Your task to perform on an android device: toggle notification dots Image 0: 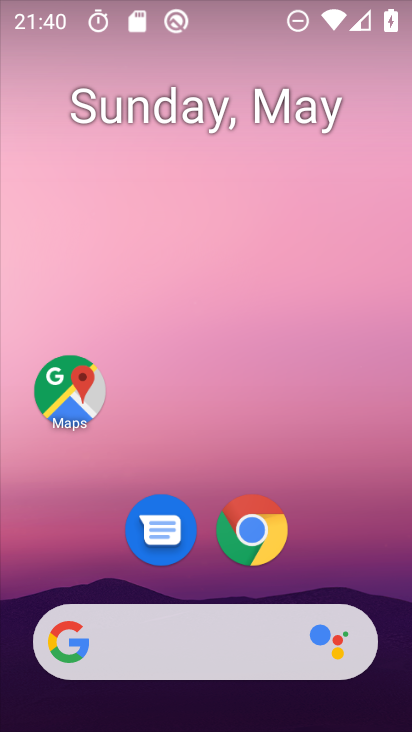
Step 0: drag from (248, 684) to (187, 180)
Your task to perform on an android device: toggle notification dots Image 1: 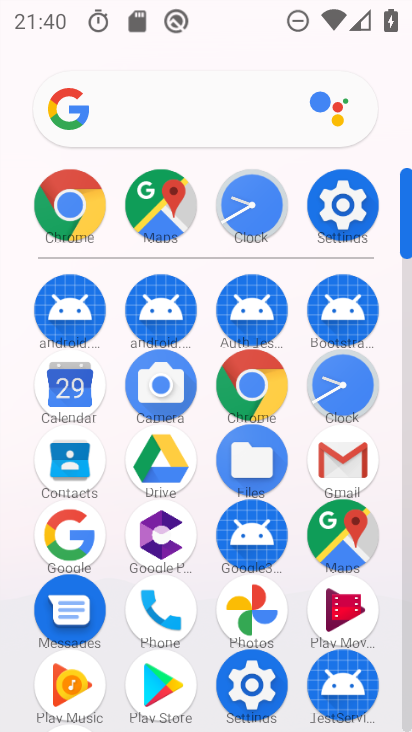
Step 1: click (319, 219)
Your task to perform on an android device: toggle notification dots Image 2: 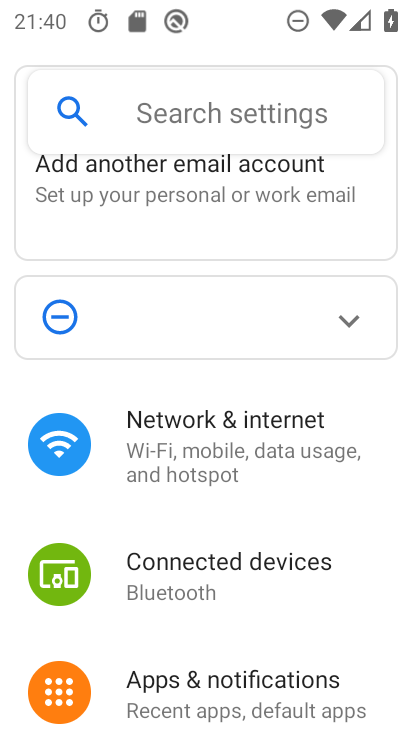
Step 2: click (154, 107)
Your task to perform on an android device: toggle notification dots Image 3: 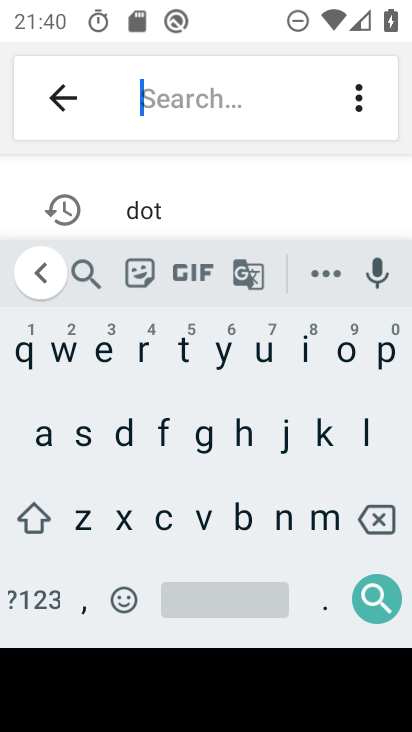
Step 3: click (134, 207)
Your task to perform on an android device: toggle notification dots Image 4: 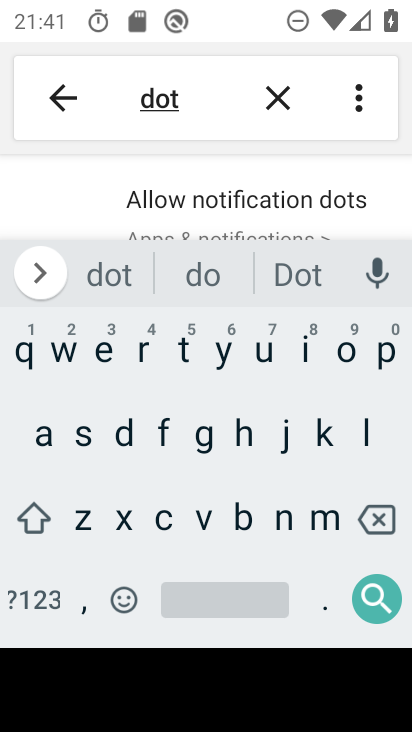
Step 4: click (223, 210)
Your task to perform on an android device: toggle notification dots Image 5: 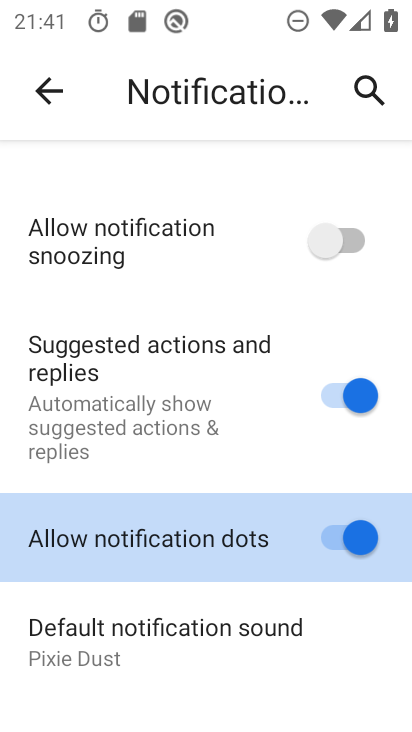
Step 5: task complete